Your task to perform on an android device: toggle notification dots Image 0: 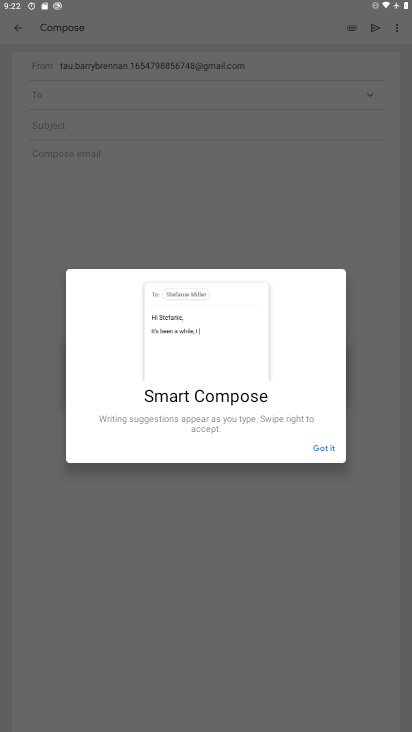
Step 0: press home button
Your task to perform on an android device: toggle notification dots Image 1: 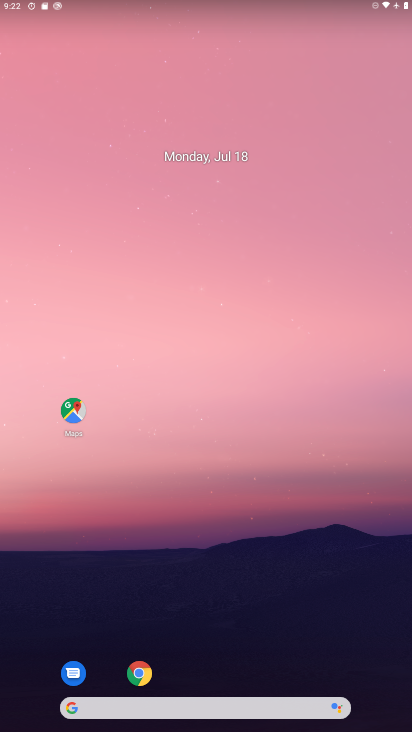
Step 1: drag from (212, 664) to (220, 124)
Your task to perform on an android device: toggle notification dots Image 2: 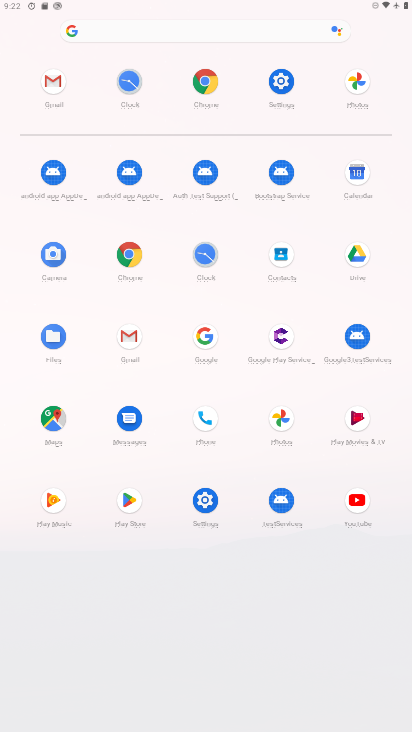
Step 2: click (290, 83)
Your task to perform on an android device: toggle notification dots Image 3: 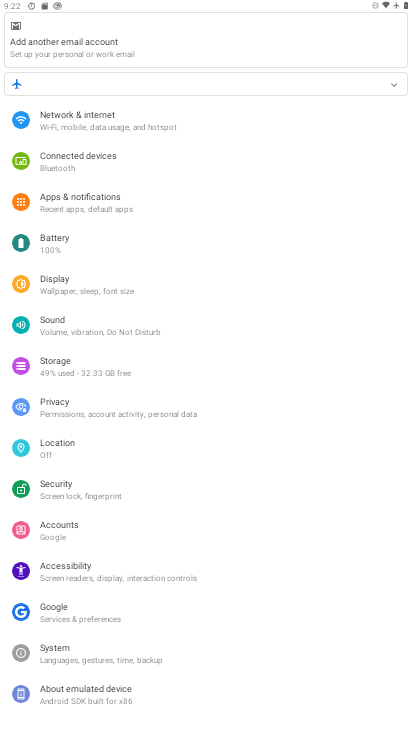
Step 3: click (91, 206)
Your task to perform on an android device: toggle notification dots Image 4: 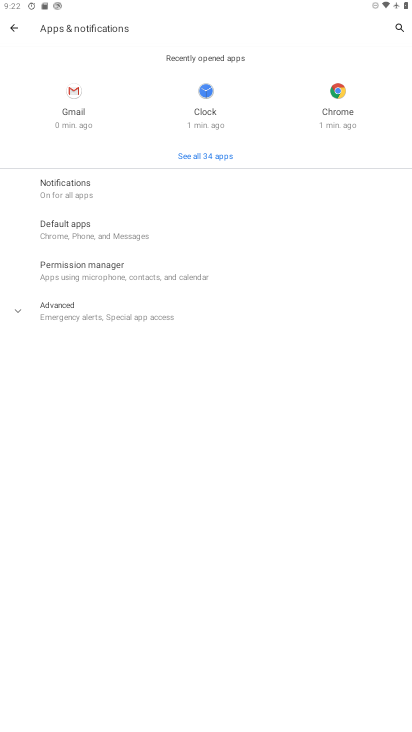
Step 4: click (61, 190)
Your task to perform on an android device: toggle notification dots Image 5: 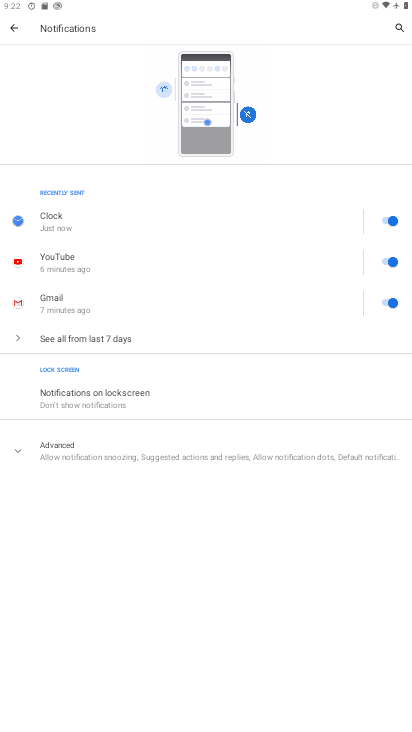
Step 5: click (77, 452)
Your task to perform on an android device: toggle notification dots Image 6: 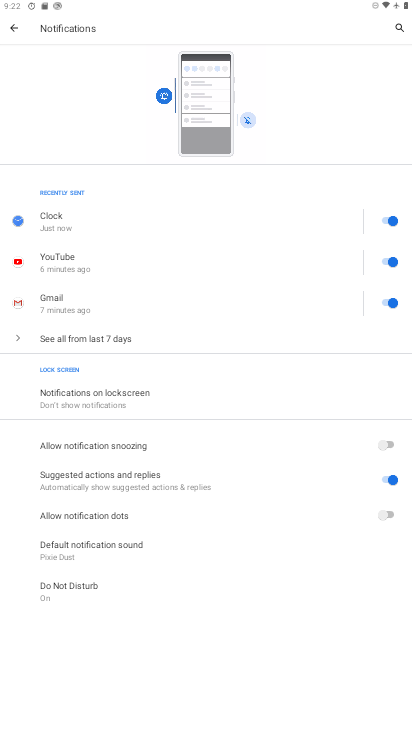
Step 6: click (386, 516)
Your task to perform on an android device: toggle notification dots Image 7: 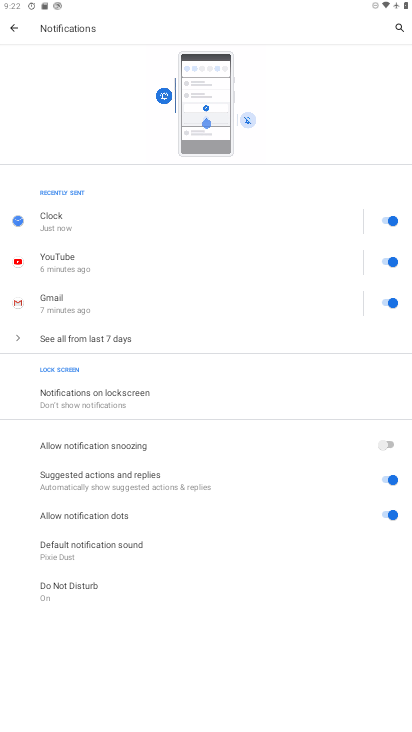
Step 7: task complete